Your task to perform on an android device: turn on improve location accuracy Image 0: 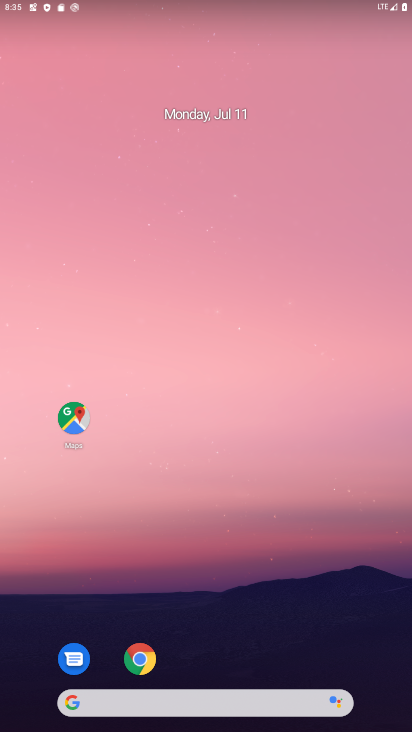
Step 0: drag from (230, 635) to (198, 16)
Your task to perform on an android device: turn on improve location accuracy Image 1: 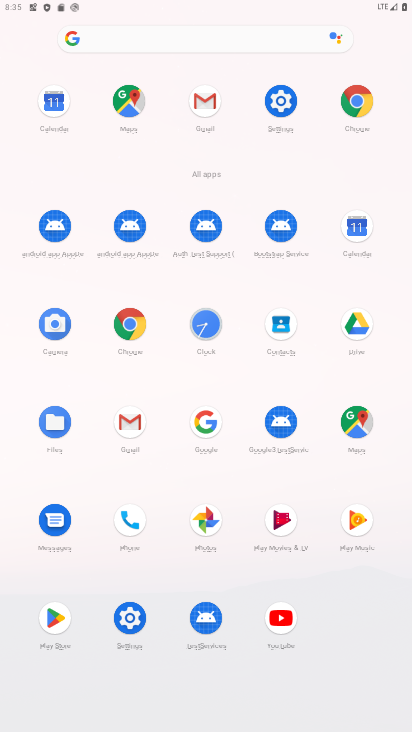
Step 1: click (131, 607)
Your task to perform on an android device: turn on improve location accuracy Image 2: 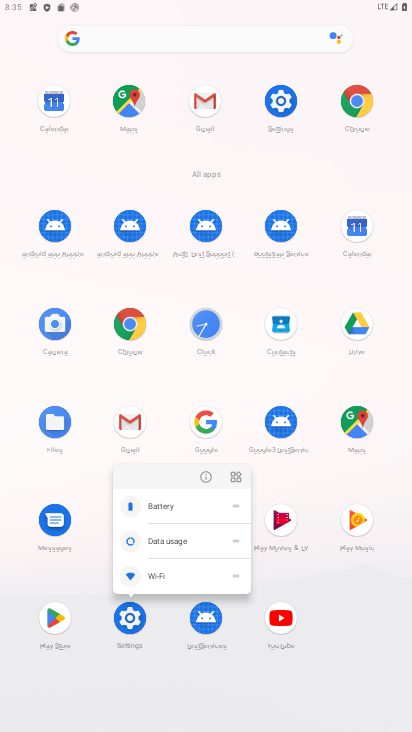
Step 2: click (131, 627)
Your task to perform on an android device: turn on improve location accuracy Image 3: 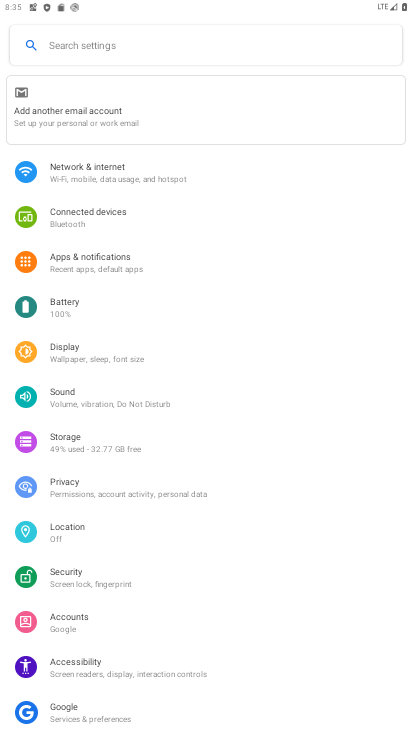
Step 3: click (100, 537)
Your task to perform on an android device: turn on improve location accuracy Image 4: 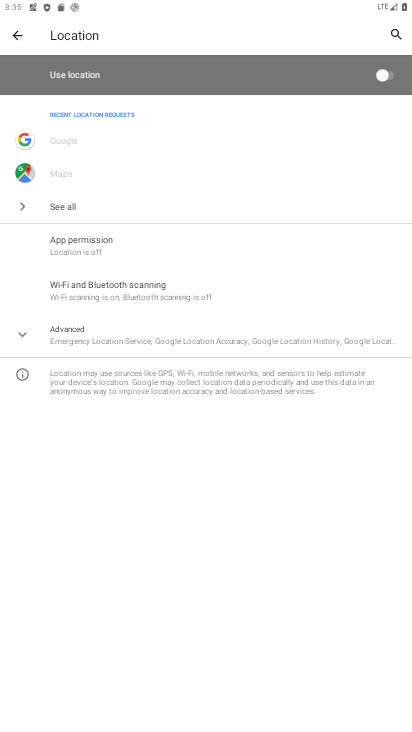
Step 4: click (116, 342)
Your task to perform on an android device: turn on improve location accuracy Image 5: 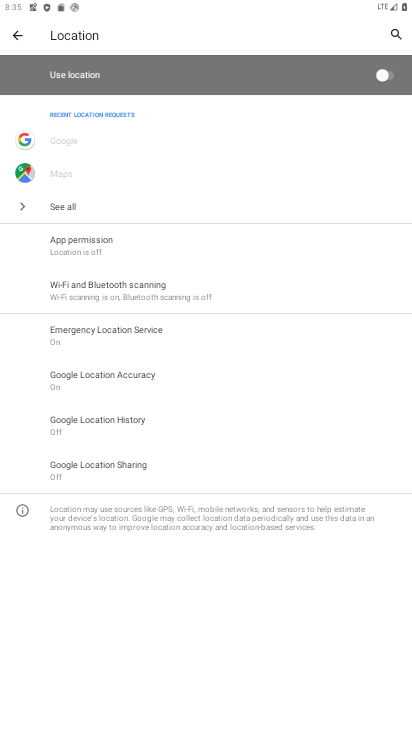
Step 5: click (161, 389)
Your task to perform on an android device: turn on improve location accuracy Image 6: 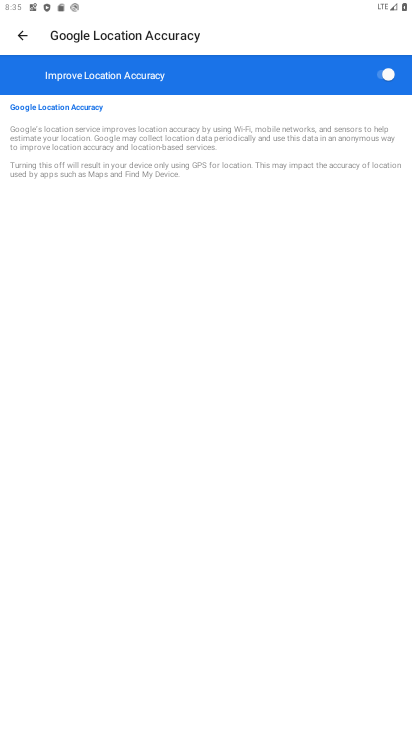
Step 6: task complete